Your task to perform on an android device: Open the phone app and click the voicemail tab. Image 0: 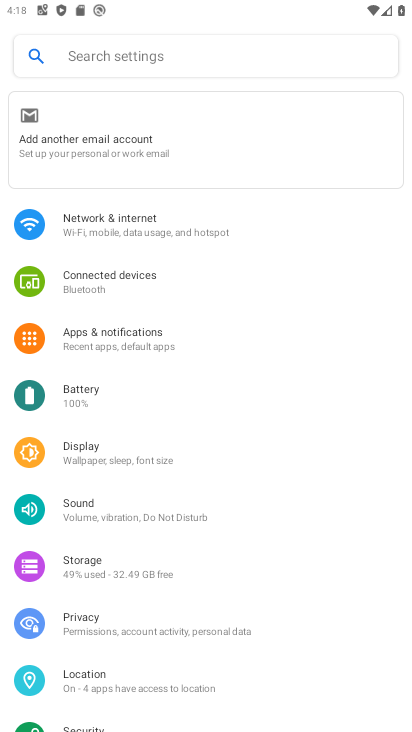
Step 0: press home button
Your task to perform on an android device: Open the phone app and click the voicemail tab. Image 1: 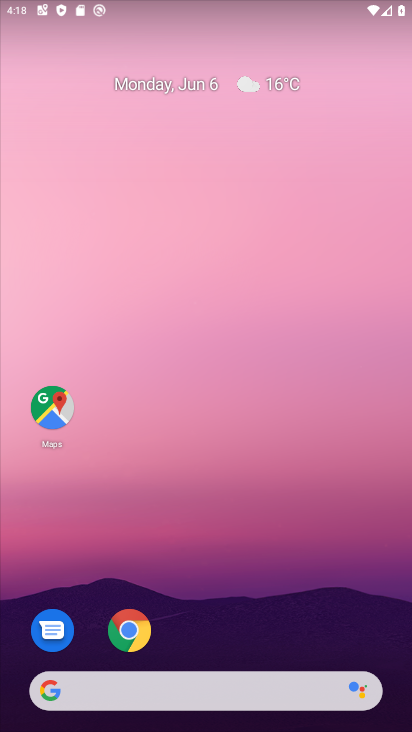
Step 1: drag from (243, 580) to (253, 144)
Your task to perform on an android device: Open the phone app and click the voicemail tab. Image 2: 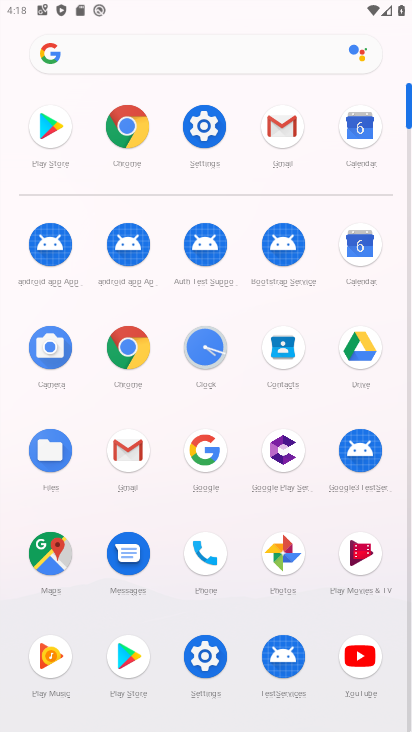
Step 2: click (209, 554)
Your task to perform on an android device: Open the phone app and click the voicemail tab. Image 3: 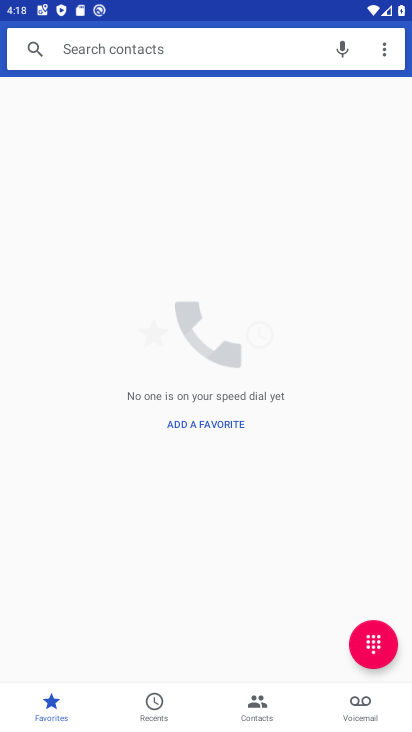
Step 3: click (347, 701)
Your task to perform on an android device: Open the phone app and click the voicemail tab. Image 4: 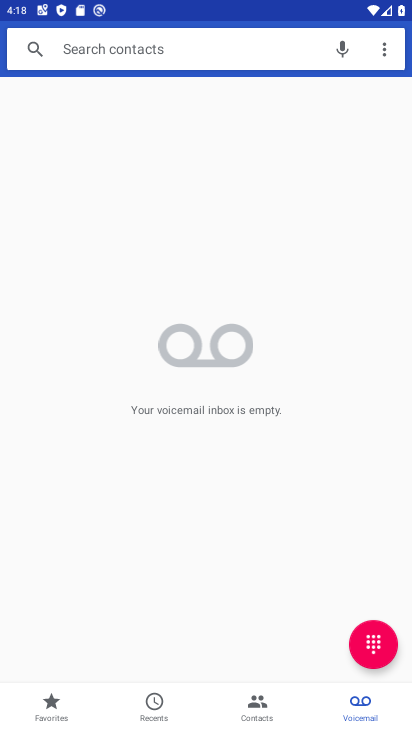
Step 4: task complete